Your task to perform on an android device: toggle translation in the chrome app Image 0: 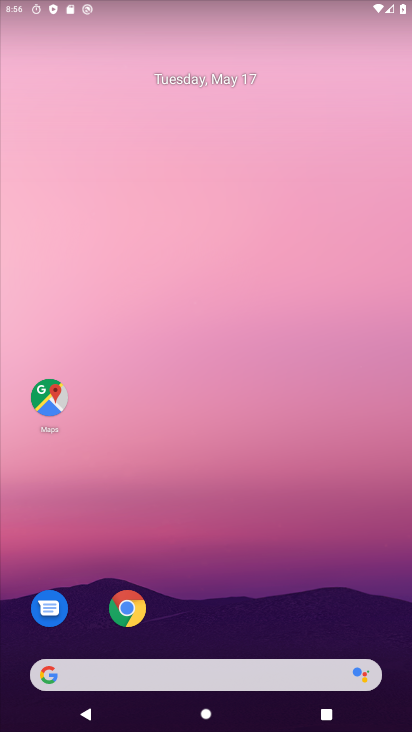
Step 0: drag from (314, 600) to (328, 210)
Your task to perform on an android device: toggle translation in the chrome app Image 1: 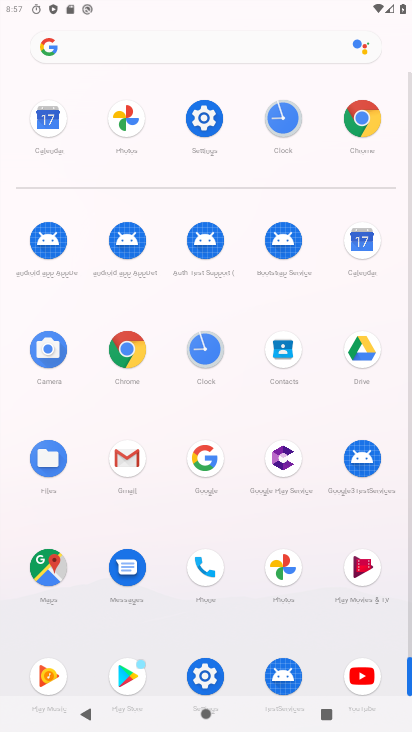
Step 1: click (114, 361)
Your task to perform on an android device: toggle translation in the chrome app Image 2: 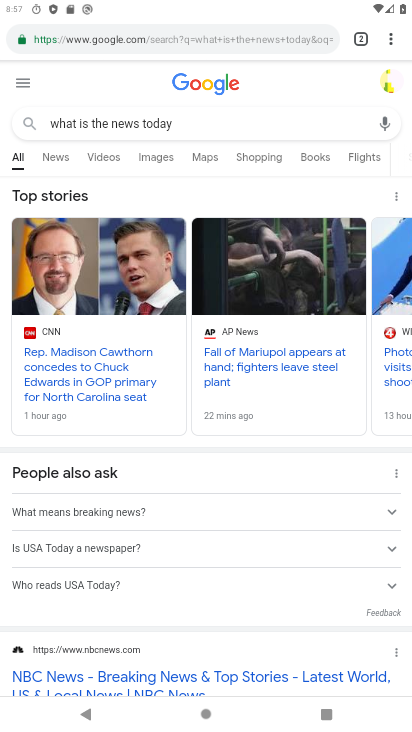
Step 2: drag from (390, 44) to (239, 442)
Your task to perform on an android device: toggle translation in the chrome app Image 3: 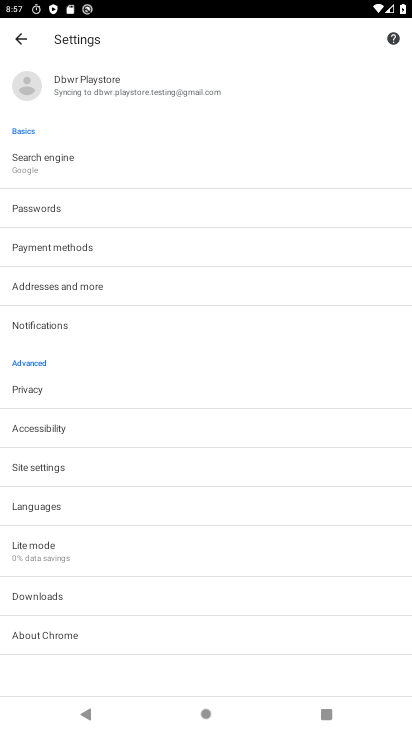
Step 3: click (60, 513)
Your task to perform on an android device: toggle translation in the chrome app Image 4: 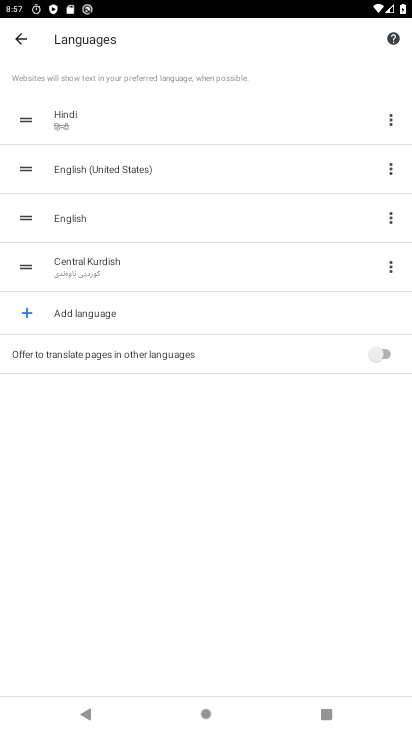
Step 4: click (389, 353)
Your task to perform on an android device: toggle translation in the chrome app Image 5: 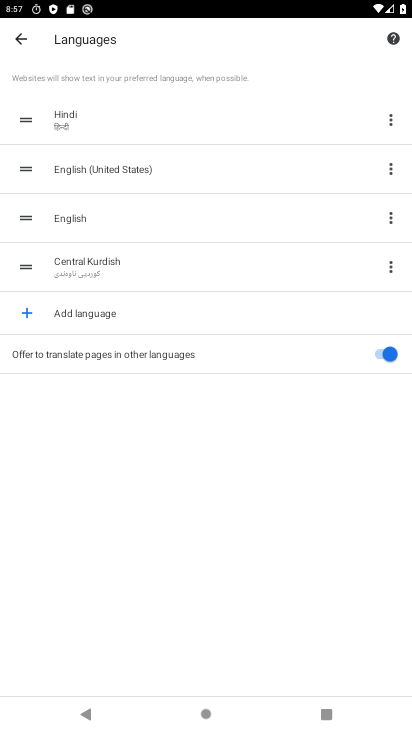
Step 5: task complete